Your task to perform on an android device: open chrome and create a bookmark for the current page Image 0: 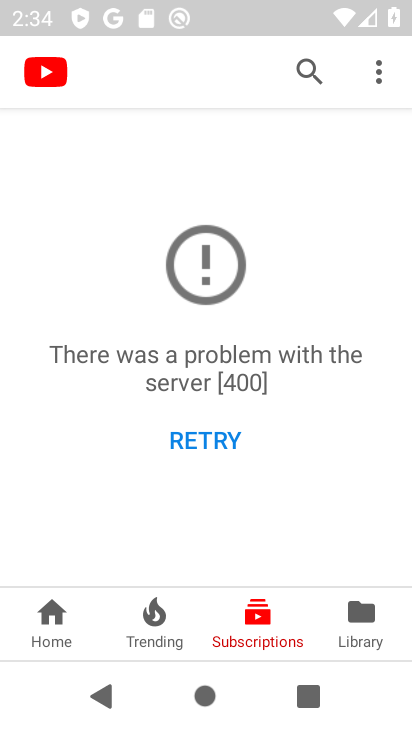
Step 0: press back button
Your task to perform on an android device: open chrome and create a bookmark for the current page Image 1: 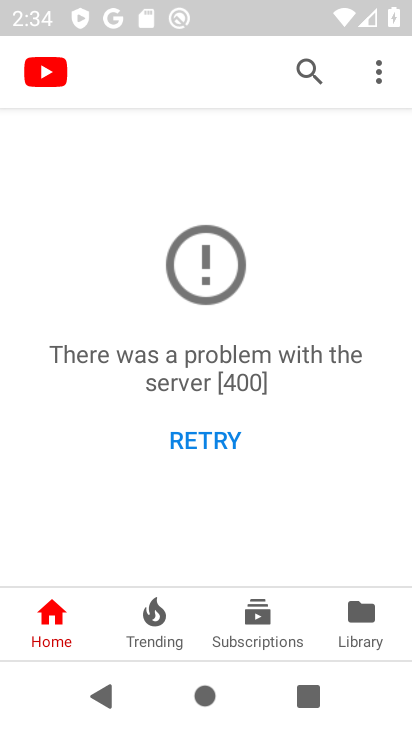
Step 1: press back button
Your task to perform on an android device: open chrome and create a bookmark for the current page Image 2: 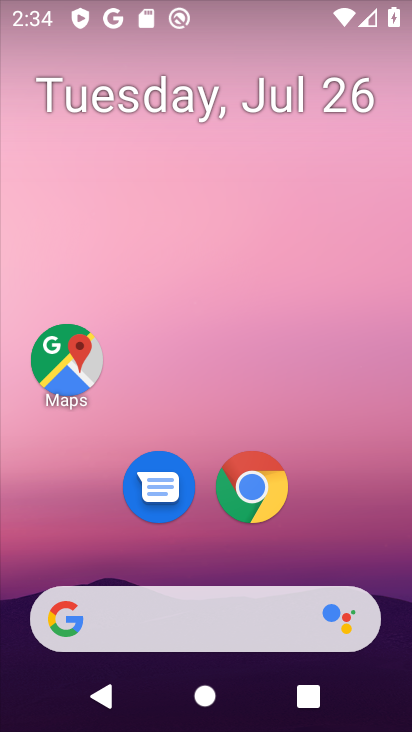
Step 2: click (251, 485)
Your task to perform on an android device: open chrome and create a bookmark for the current page Image 3: 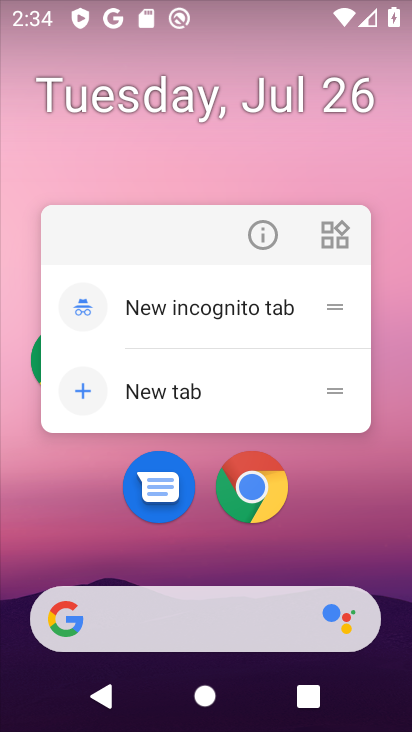
Step 3: click (251, 474)
Your task to perform on an android device: open chrome and create a bookmark for the current page Image 4: 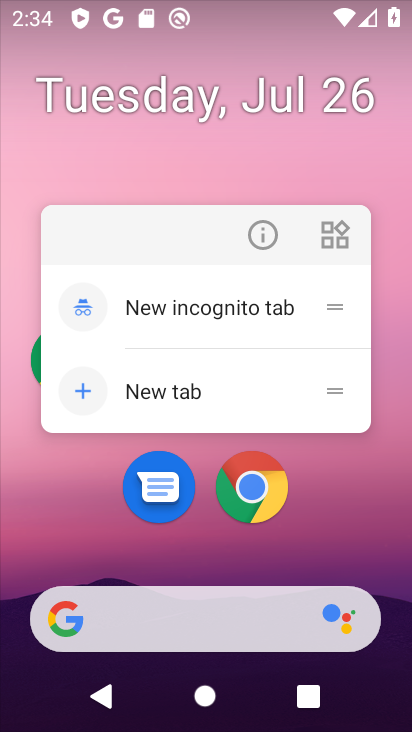
Step 4: click (255, 489)
Your task to perform on an android device: open chrome and create a bookmark for the current page Image 5: 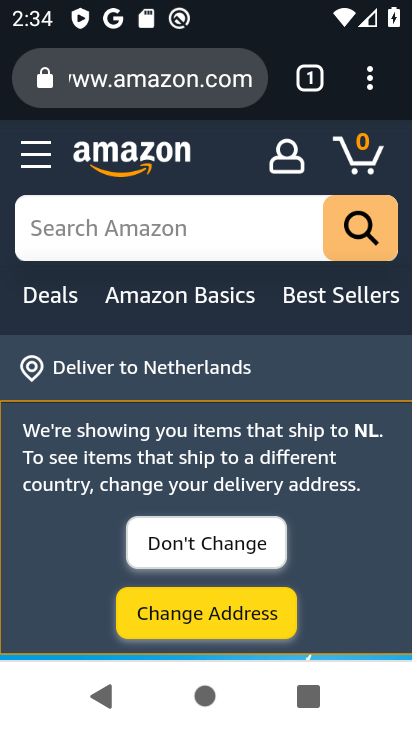
Step 5: task complete